Your task to perform on an android device: What's the latest news in astrophysics? Image 0: 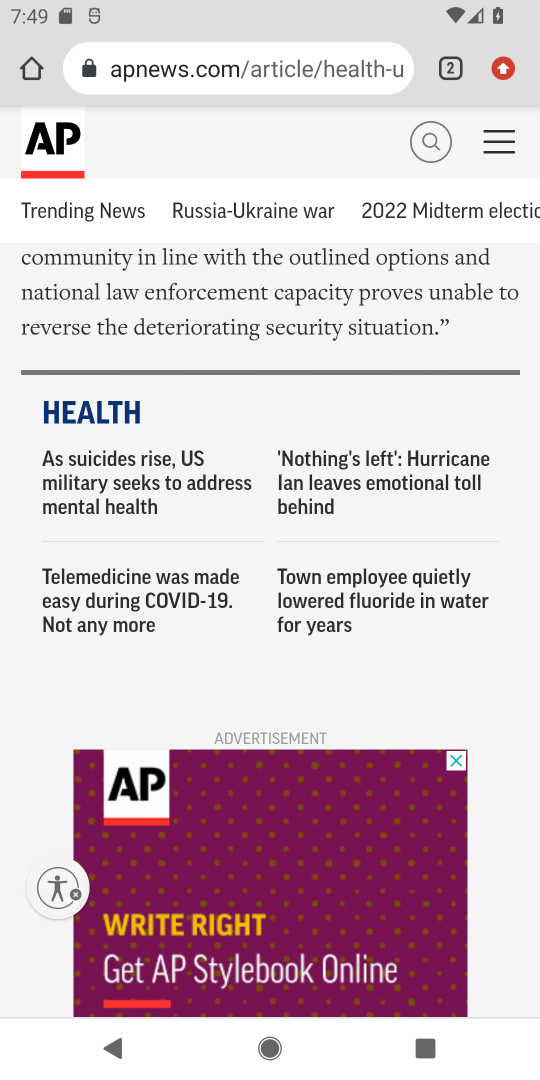
Step 0: press home button
Your task to perform on an android device: What's the latest news in astrophysics? Image 1: 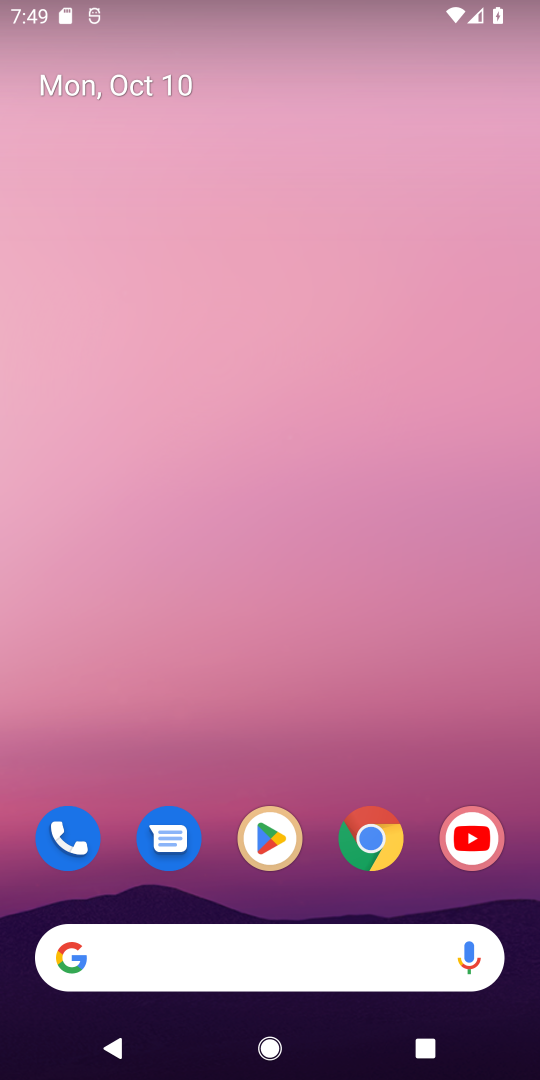
Step 1: click (375, 843)
Your task to perform on an android device: What's the latest news in astrophysics? Image 2: 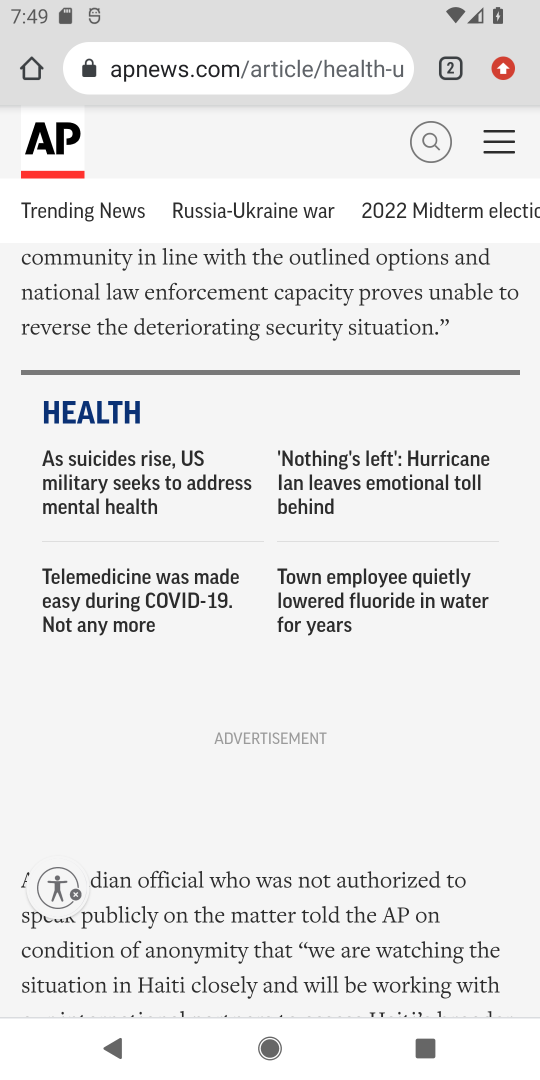
Step 2: click (224, 49)
Your task to perform on an android device: What's the latest news in astrophysics? Image 3: 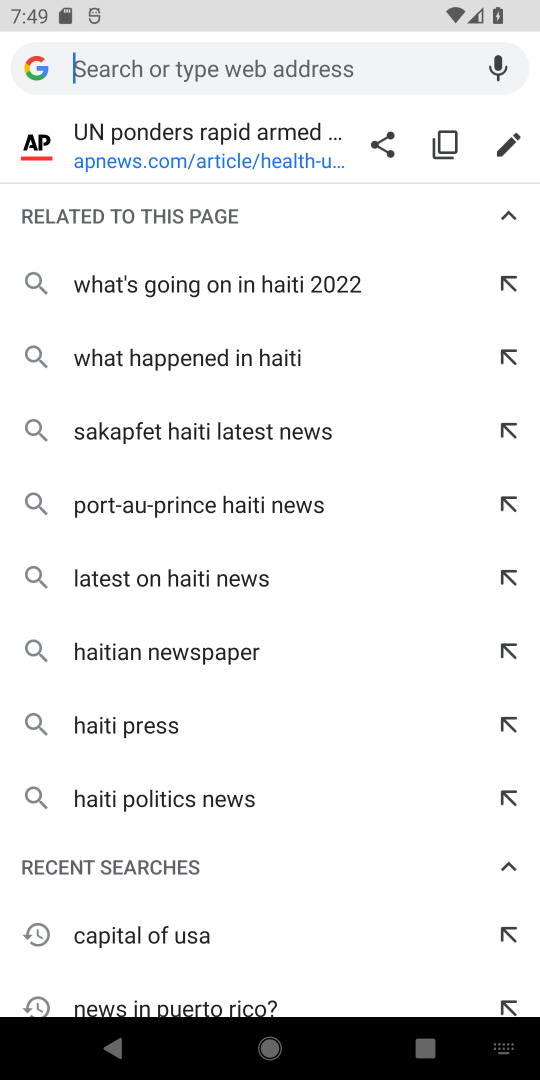
Step 3: type "news in astrophysics?"
Your task to perform on an android device: What's the latest news in astrophysics? Image 4: 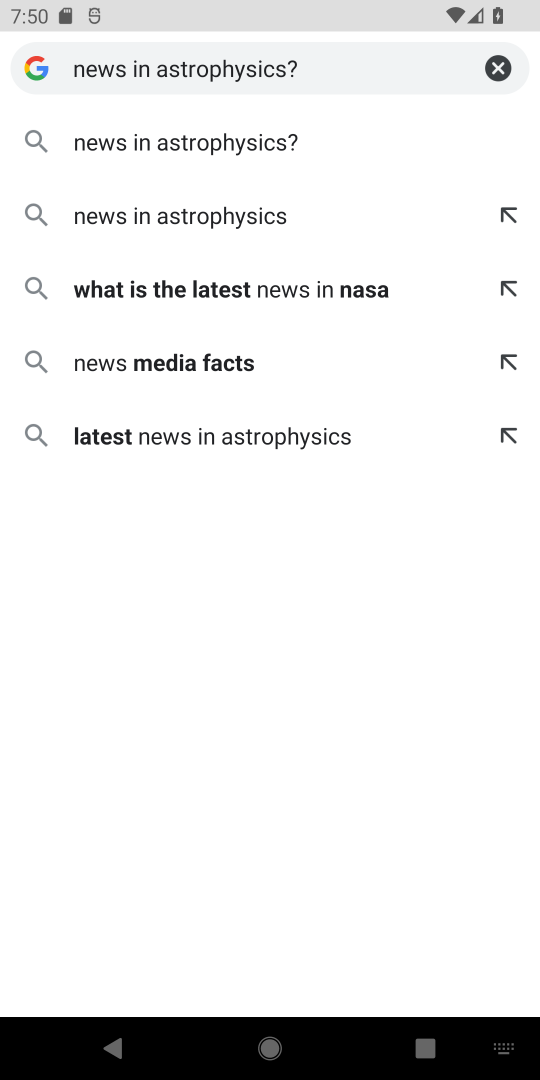
Step 4: click (150, 131)
Your task to perform on an android device: What's the latest news in astrophysics? Image 5: 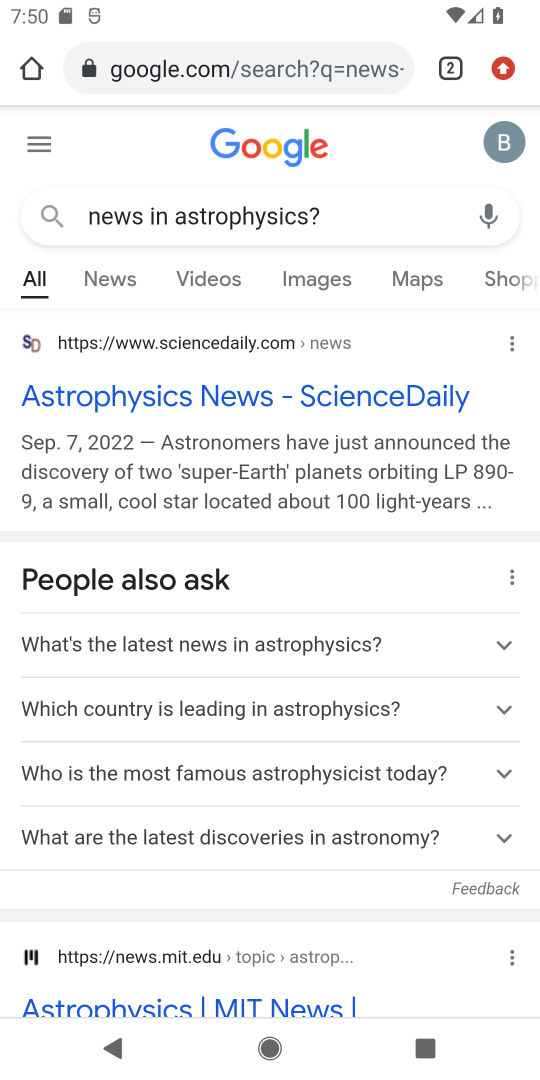
Step 5: click (148, 403)
Your task to perform on an android device: What's the latest news in astrophysics? Image 6: 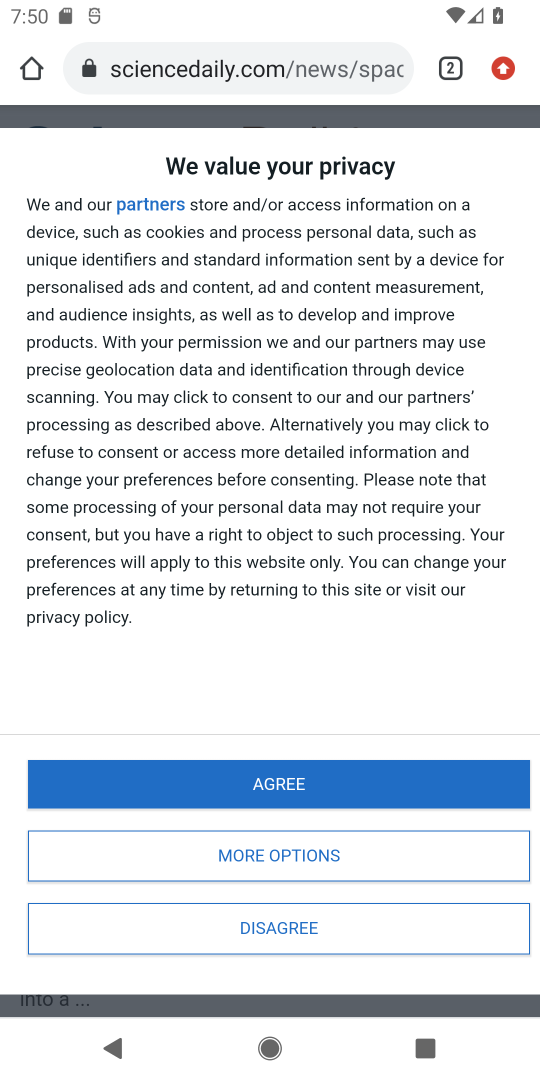
Step 6: click (275, 787)
Your task to perform on an android device: What's the latest news in astrophysics? Image 7: 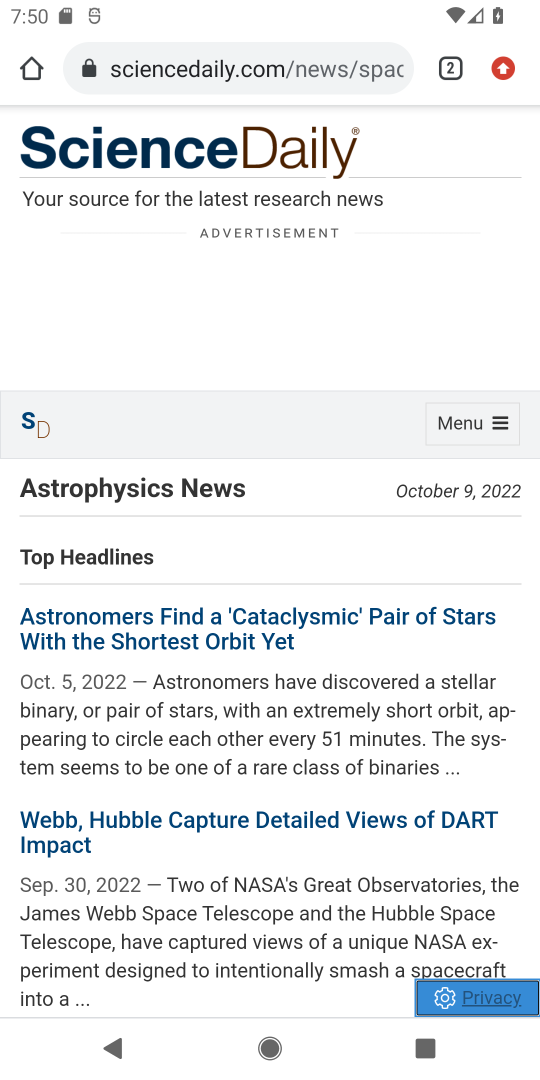
Step 7: click (123, 618)
Your task to perform on an android device: What's the latest news in astrophysics? Image 8: 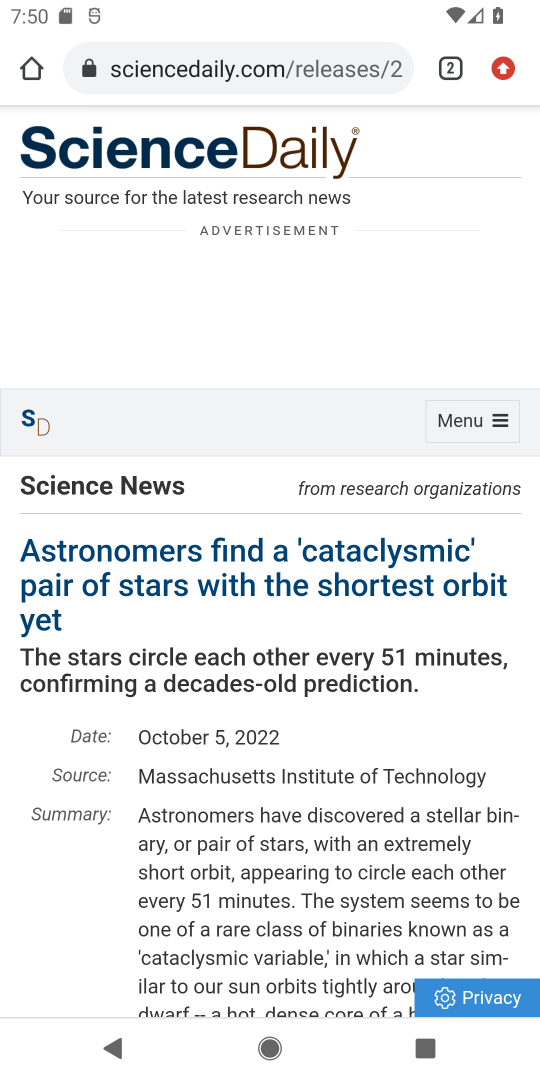
Step 8: task complete